Your task to perform on an android device: Search for seafood restaurants on Google Maps Image 0: 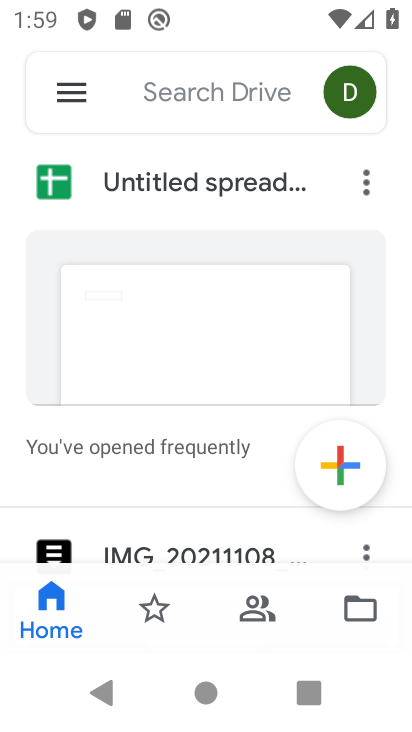
Step 0: press home button
Your task to perform on an android device: Search for seafood restaurants on Google Maps Image 1: 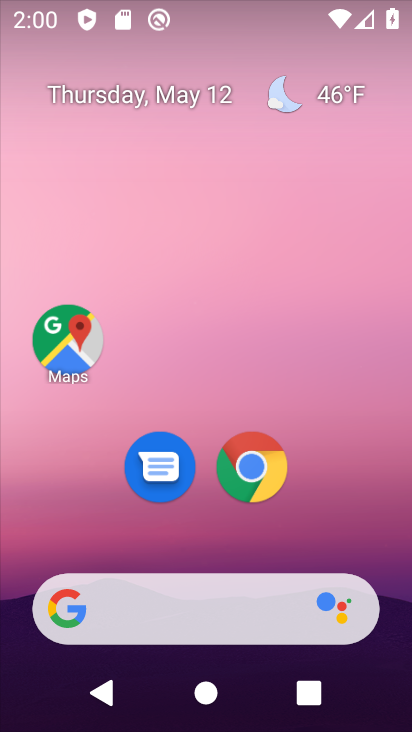
Step 1: click (84, 355)
Your task to perform on an android device: Search for seafood restaurants on Google Maps Image 2: 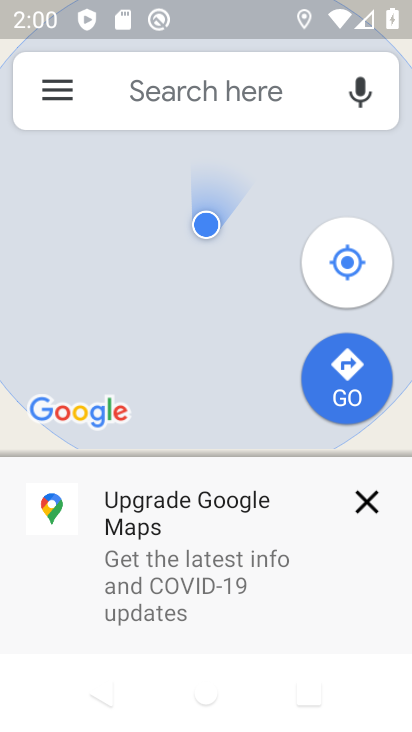
Step 2: click (151, 96)
Your task to perform on an android device: Search for seafood restaurants on Google Maps Image 3: 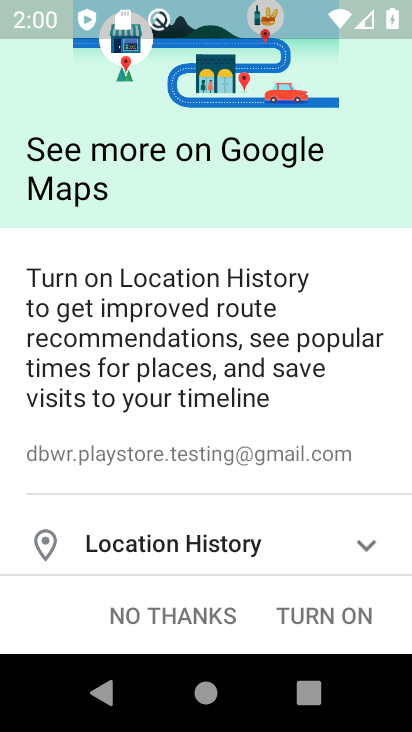
Step 3: click (327, 612)
Your task to perform on an android device: Search for seafood restaurants on Google Maps Image 4: 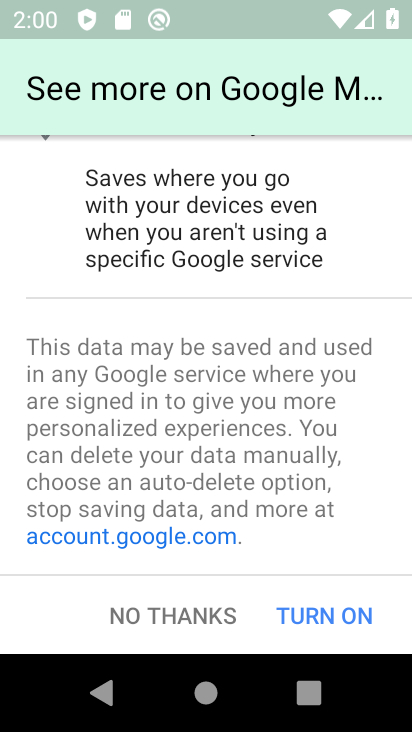
Step 4: click (327, 612)
Your task to perform on an android device: Search for seafood restaurants on Google Maps Image 5: 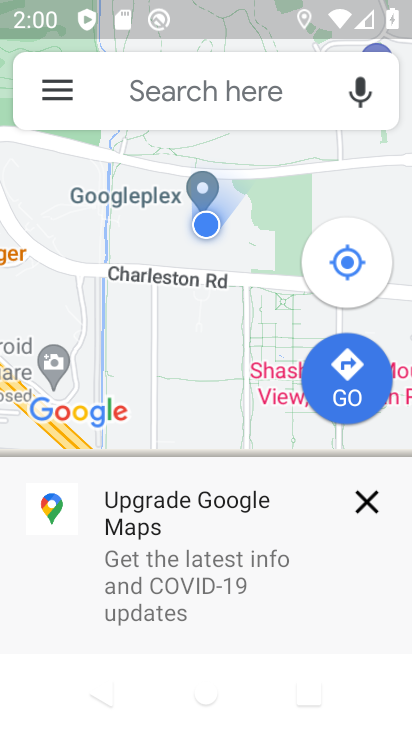
Step 5: click (238, 102)
Your task to perform on an android device: Search for seafood restaurants on Google Maps Image 6: 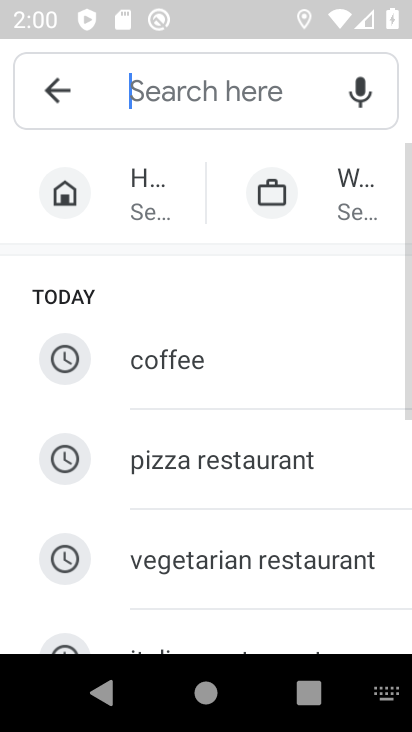
Step 6: drag from (265, 490) to (234, 251)
Your task to perform on an android device: Search for seafood restaurants on Google Maps Image 7: 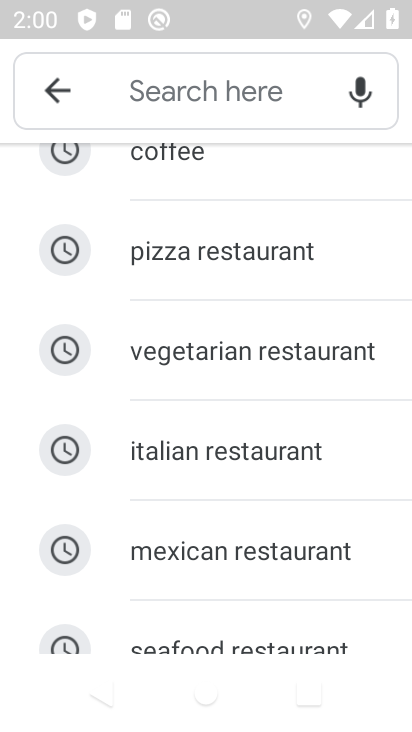
Step 7: click (229, 626)
Your task to perform on an android device: Search for seafood restaurants on Google Maps Image 8: 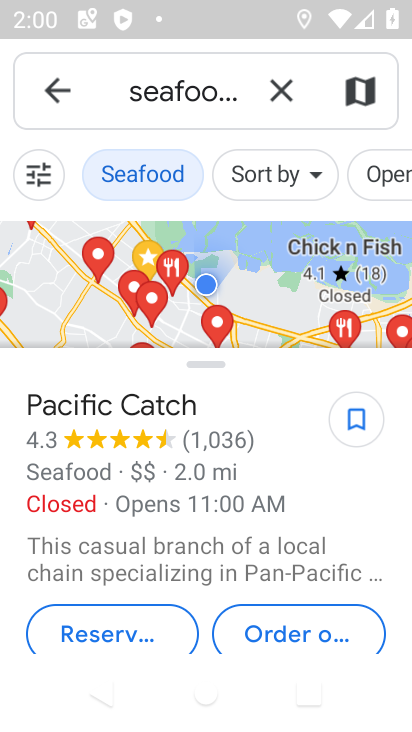
Step 8: task complete